Your task to perform on an android device: Go to privacy settings Image 0: 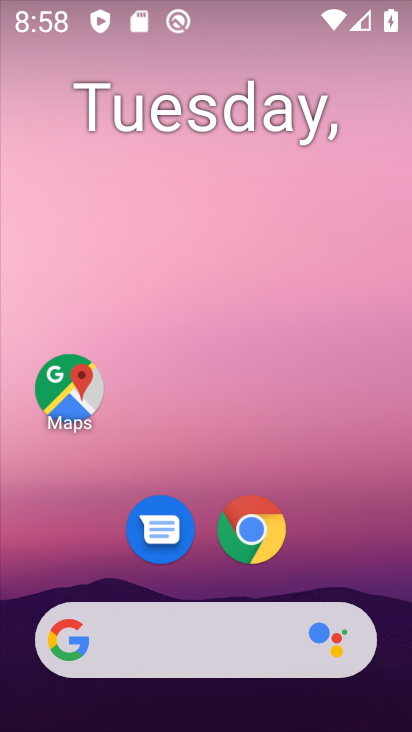
Step 0: drag from (372, 506) to (334, 226)
Your task to perform on an android device: Go to privacy settings Image 1: 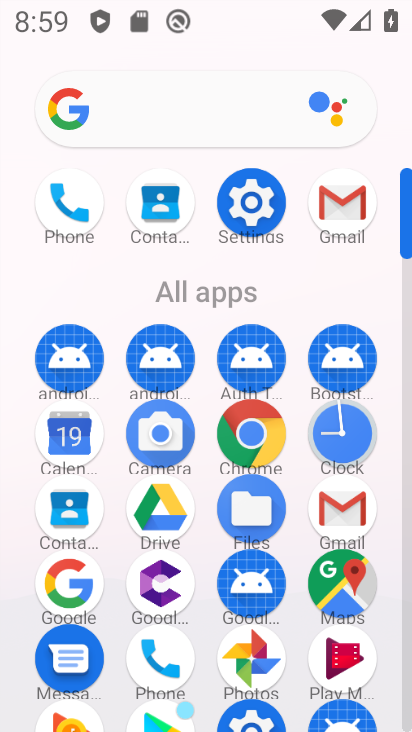
Step 1: click (406, 693)
Your task to perform on an android device: Go to privacy settings Image 2: 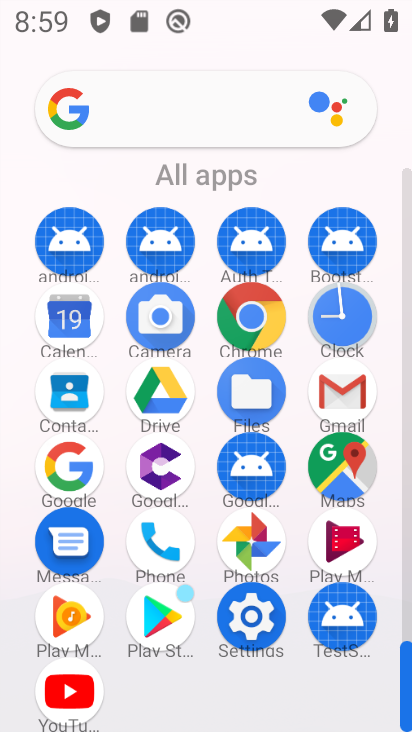
Step 2: click (248, 615)
Your task to perform on an android device: Go to privacy settings Image 3: 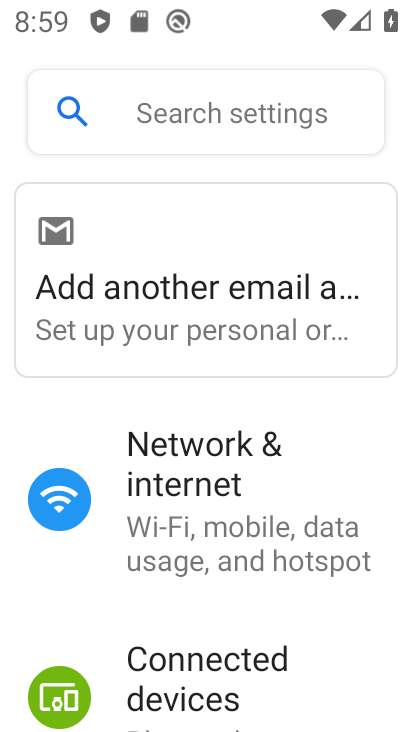
Step 3: drag from (299, 676) to (248, 347)
Your task to perform on an android device: Go to privacy settings Image 4: 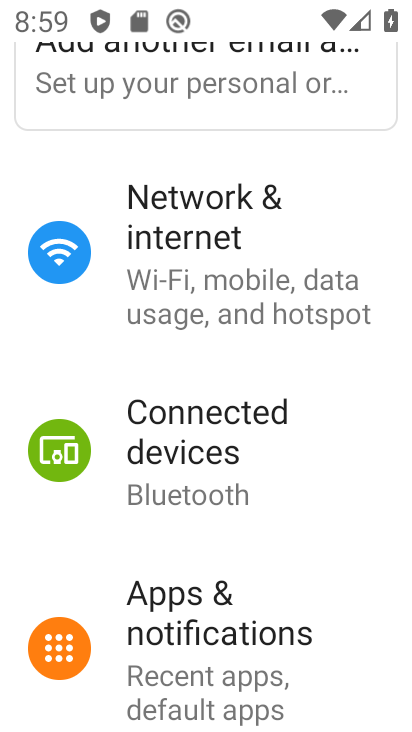
Step 4: drag from (222, 538) to (231, 302)
Your task to perform on an android device: Go to privacy settings Image 5: 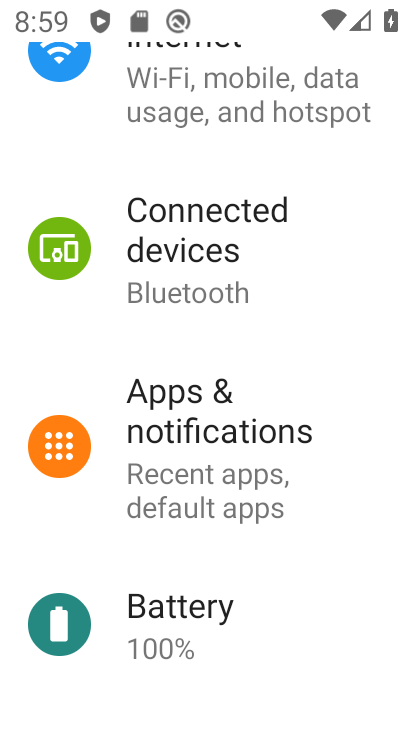
Step 5: drag from (254, 595) to (250, 350)
Your task to perform on an android device: Go to privacy settings Image 6: 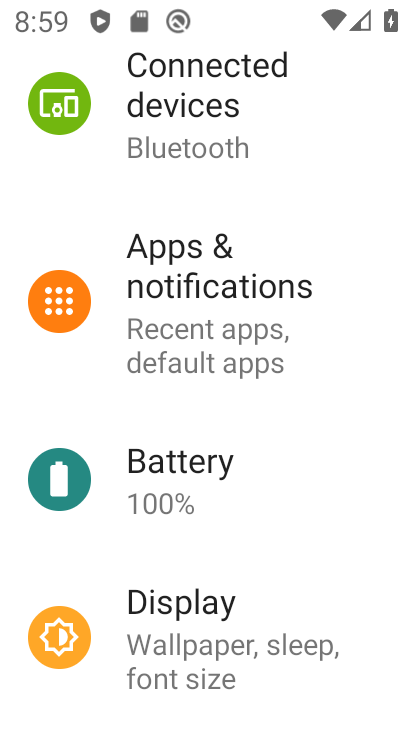
Step 6: drag from (275, 591) to (245, 254)
Your task to perform on an android device: Go to privacy settings Image 7: 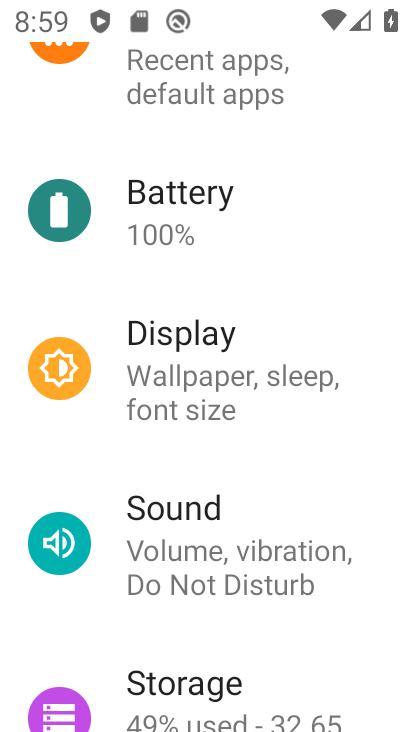
Step 7: drag from (260, 605) to (263, 280)
Your task to perform on an android device: Go to privacy settings Image 8: 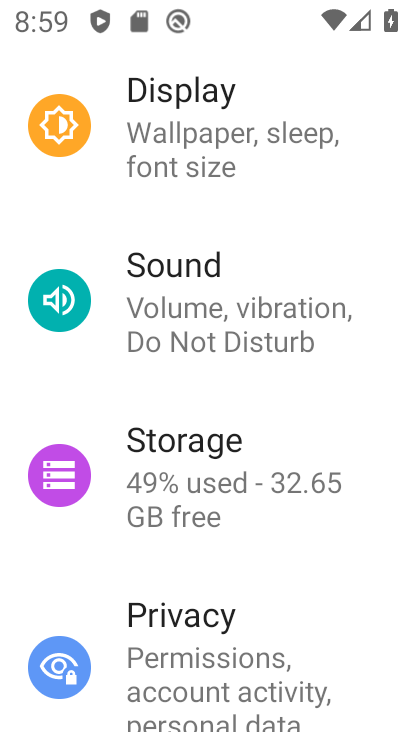
Step 8: click (172, 670)
Your task to perform on an android device: Go to privacy settings Image 9: 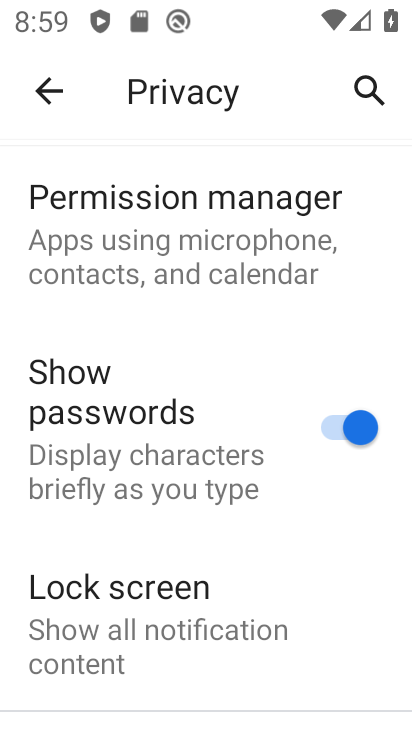
Step 9: task complete